Your task to perform on an android device: See recent photos Image 0: 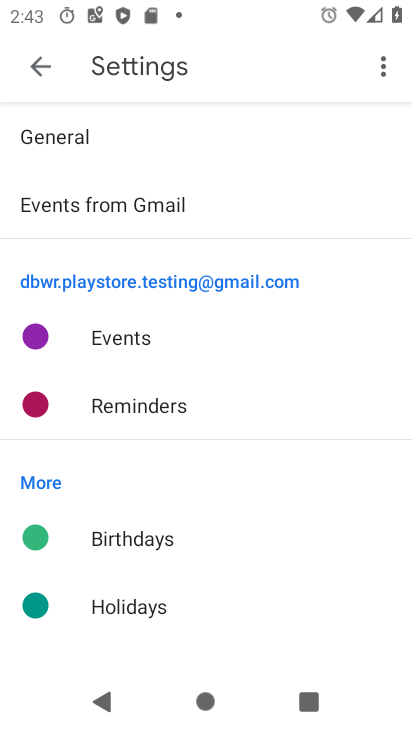
Step 0: press home button
Your task to perform on an android device: See recent photos Image 1: 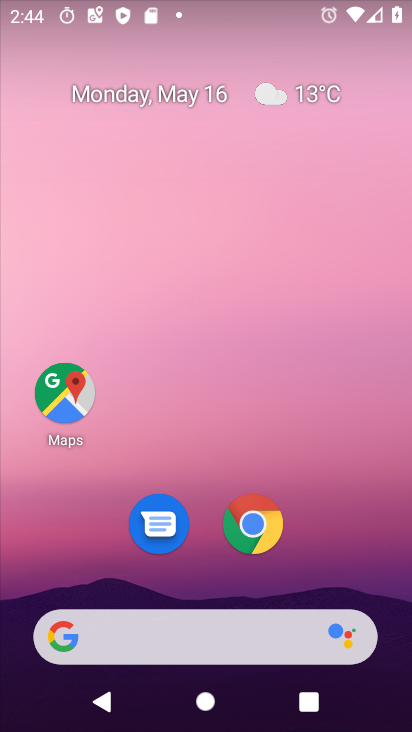
Step 1: drag from (345, 560) to (382, 97)
Your task to perform on an android device: See recent photos Image 2: 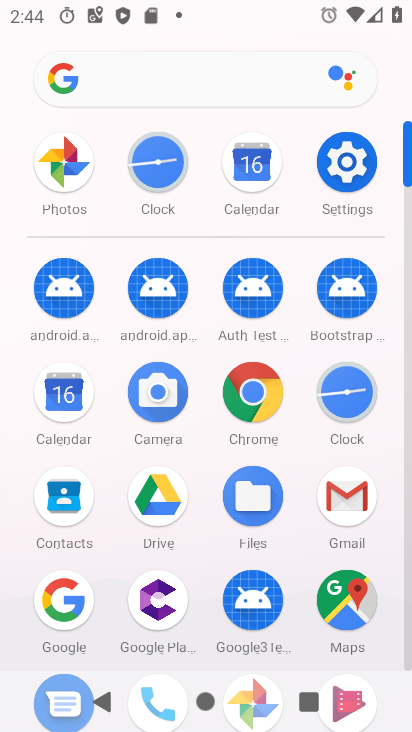
Step 2: click (61, 158)
Your task to perform on an android device: See recent photos Image 3: 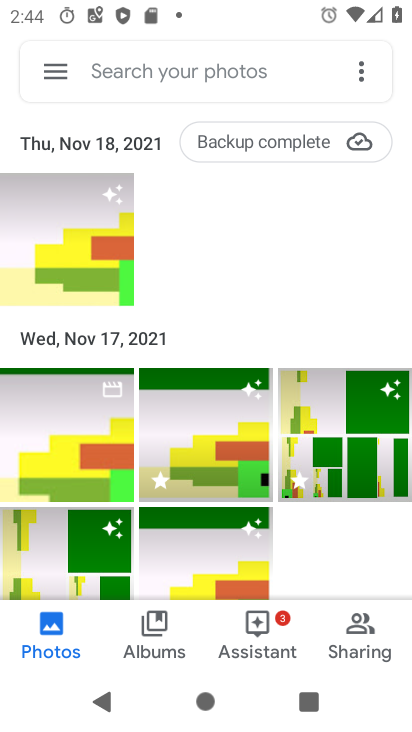
Step 3: task complete